Your task to perform on an android device: turn on improve location accuracy Image 0: 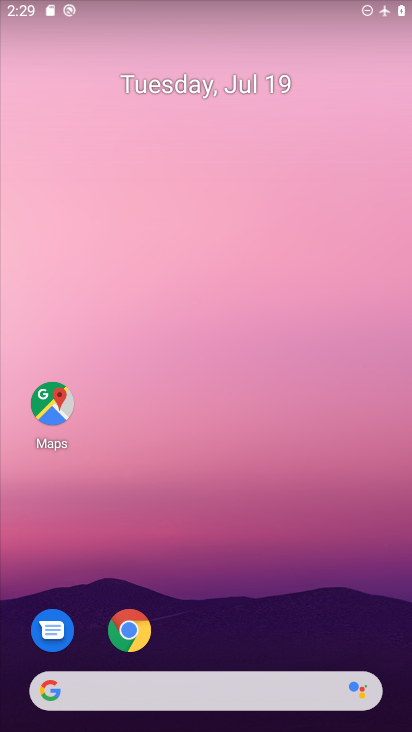
Step 0: drag from (376, 630) to (346, 191)
Your task to perform on an android device: turn on improve location accuracy Image 1: 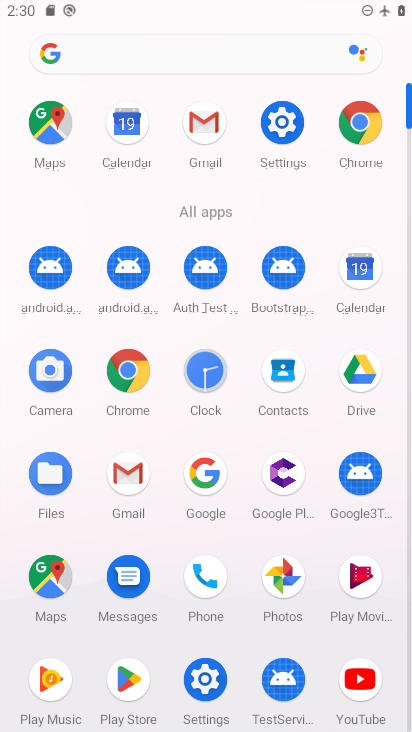
Step 1: click (205, 679)
Your task to perform on an android device: turn on improve location accuracy Image 2: 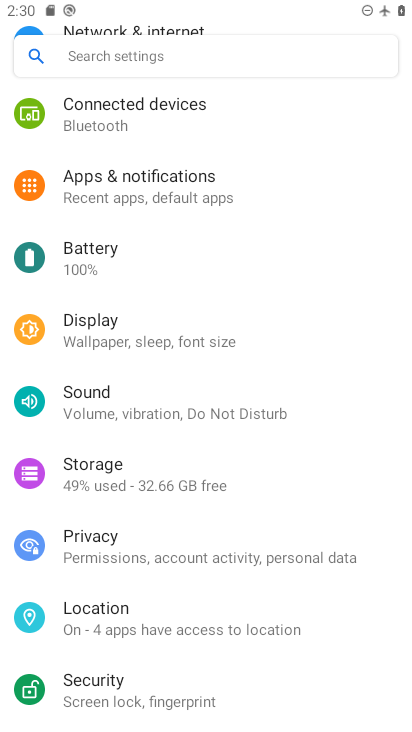
Step 2: click (112, 616)
Your task to perform on an android device: turn on improve location accuracy Image 3: 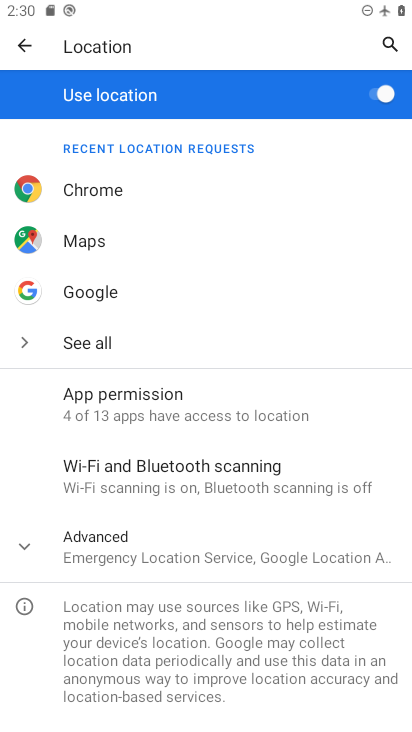
Step 3: click (13, 550)
Your task to perform on an android device: turn on improve location accuracy Image 4: 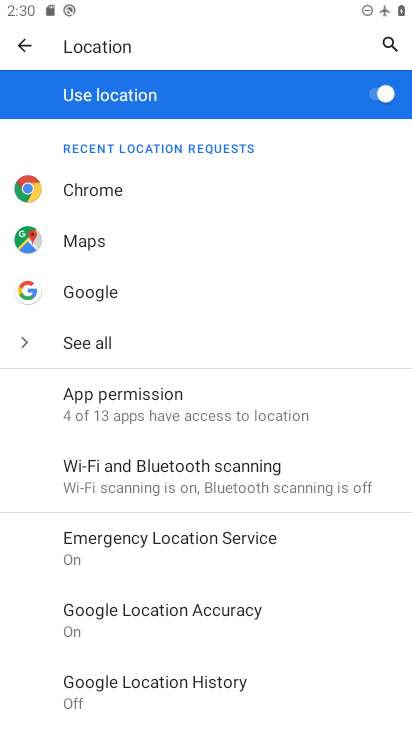
Step 4: click (172, 614)
Your task to perform on an android device: turn on improve location accuracy Image 5: 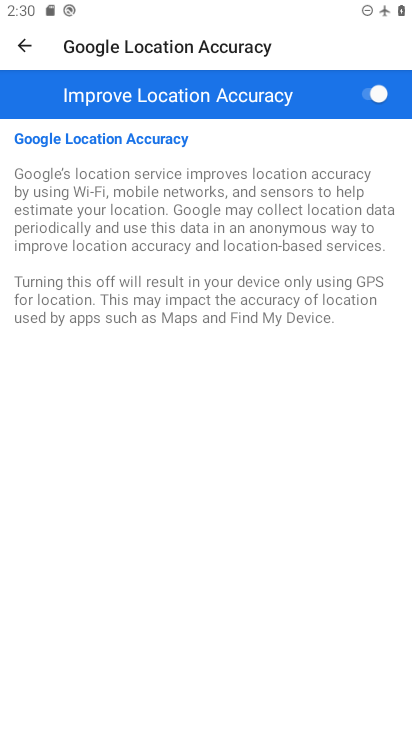
Step 5: task complete